Your task to perform on an android device: move an email to a new category in the gmail app Image 0: 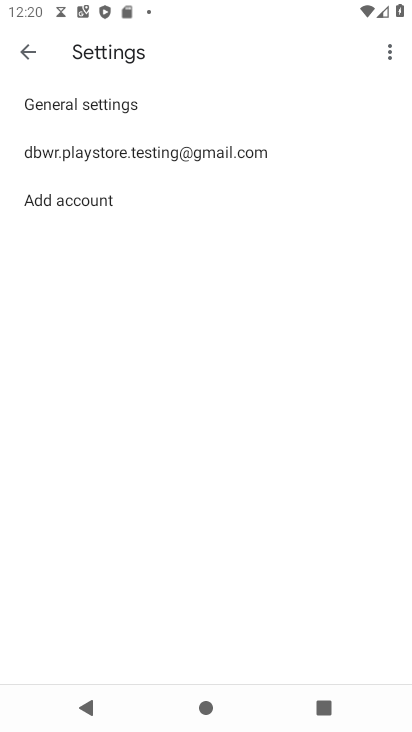
Step 0: press home button
Your task to perform on an android device: move an email to a new category in the gmail app Image 1: 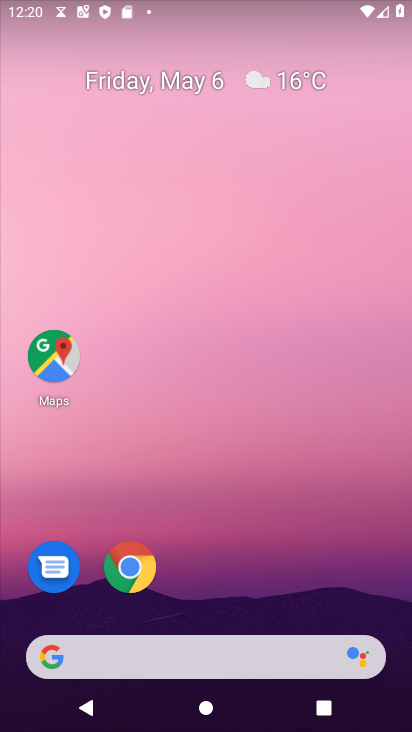
Step 1: drag from (253, 563) to (258, 0)
Your task to perform on an android device: move an email to a new category in the gmail app Image 2: 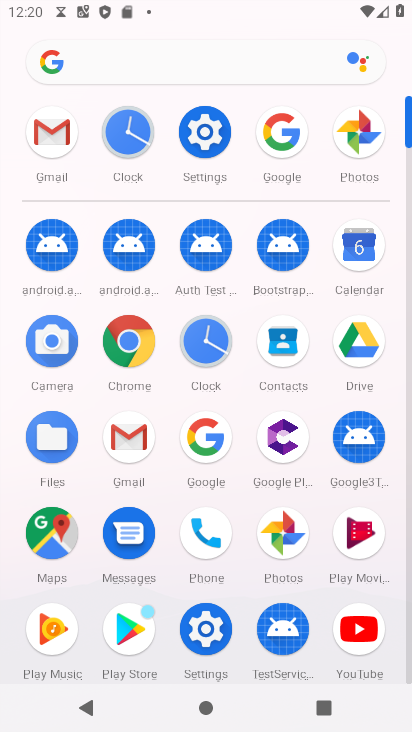
Step 2: click (47, 132)
Your task to perform on an android device: move an email to a new category in the gmail app Image 3: 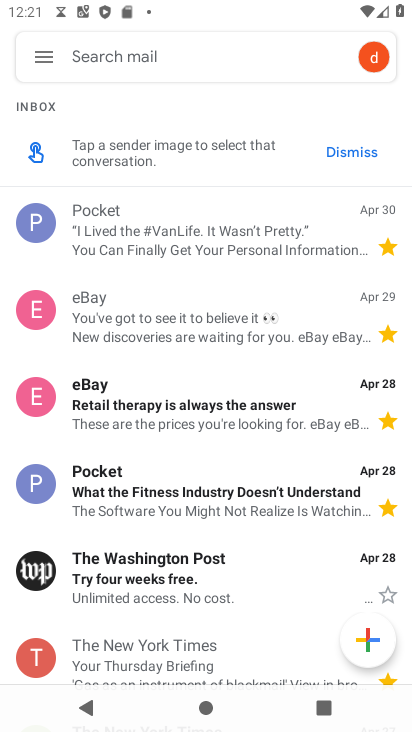
Step 3: click (119, 243)
Your task to perform on an android device: move an email to a new category in the gmail app Image 4: 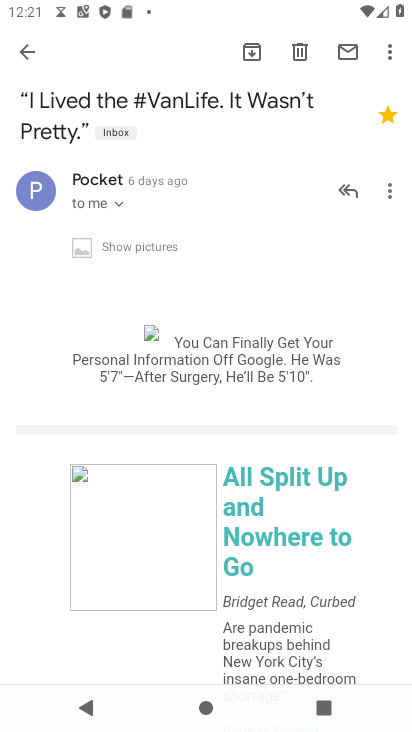
Step 4: click (391, 56)
Your task to perform on an android device: move an email to a new category in the gmail app Image 5: 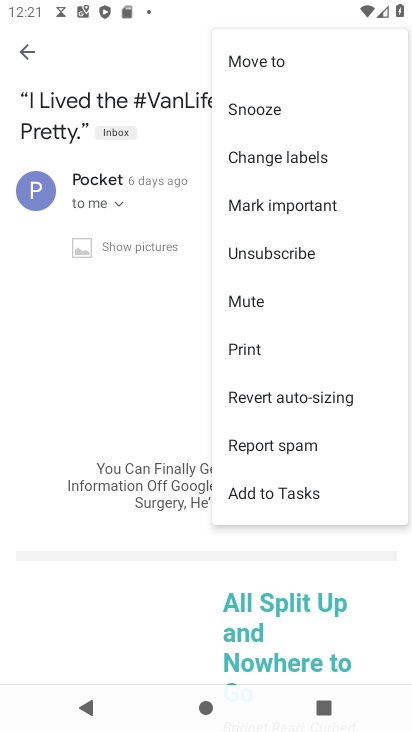
Step 5: click (42, 592)
Your task to perform on an android device: move an email to a new category in the gmail app Image 6: 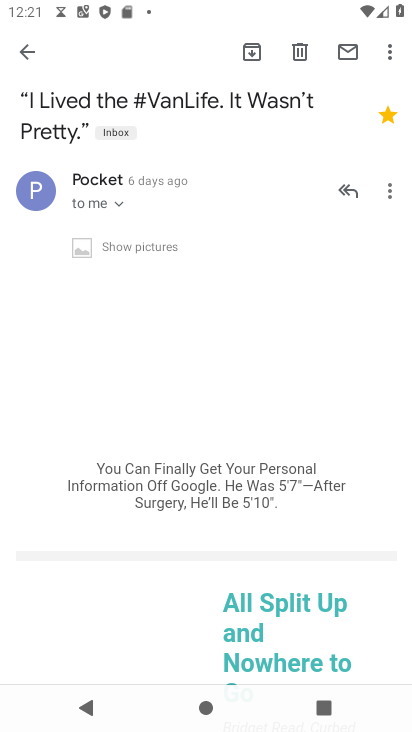
Step 6: click (399, 188)
Your task to perform on an android device: move an email to a new category in the gmail app Image 7: 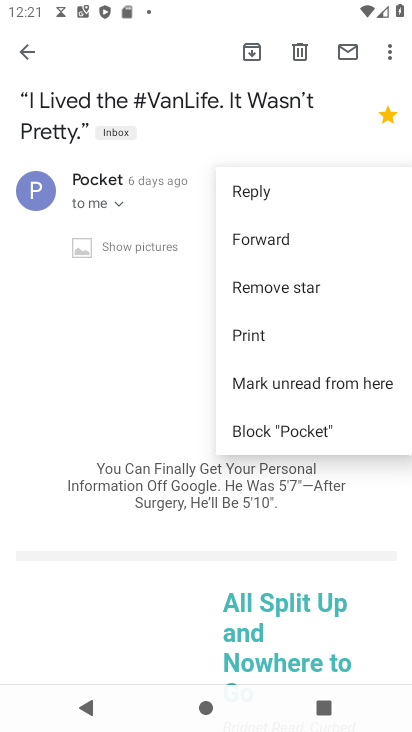
Step 7: click (280, 285)
Your task to perform on an android device: move an email to a new category in the gmail app Image 8: 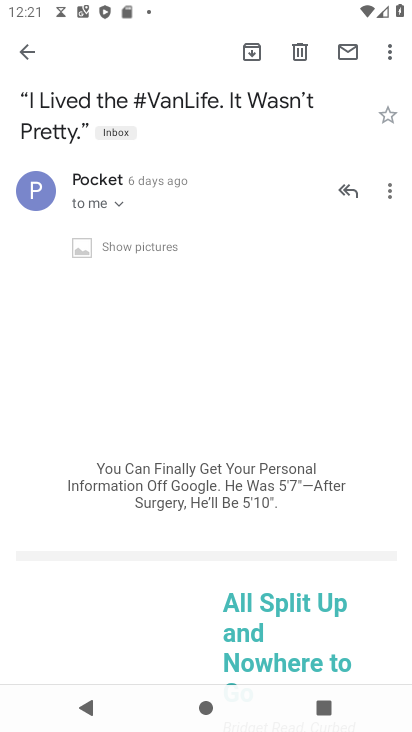
Step 8: task complete